Your task to perform on an android device: Go to sound settings Image 0: 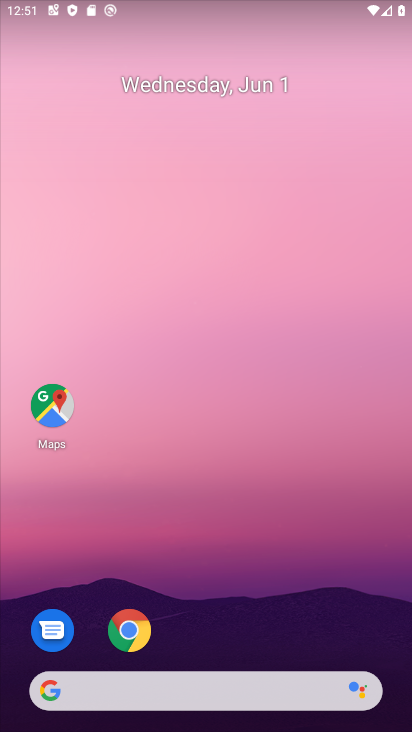
Step 0: drag from (293, 592) to (318, 112)
Your task to perform on an android device: Go to sound settings Image 1: 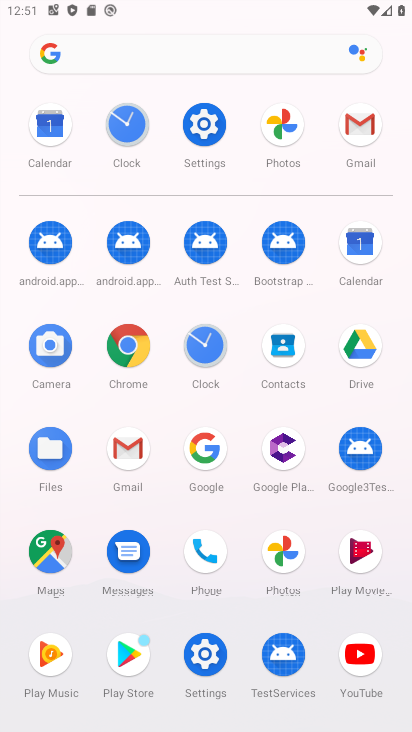
Step 1: click (202, 131)
Your task to perform on an android device: Go to sound settings Image 2: 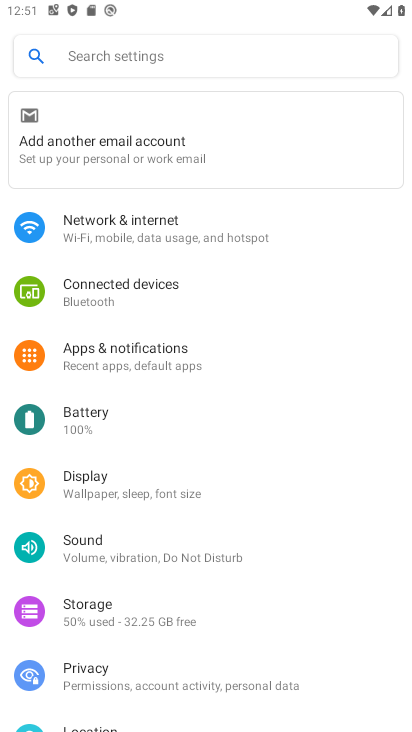
Step 2: click (98, 547)
Your task to perform on an android device: Go to sound settings Image 3: 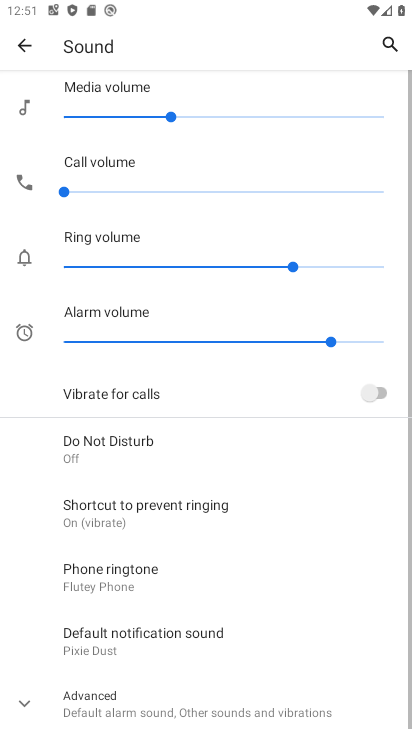
Step 3: task complete